Your task to perform on an android device: turn off airplane mode Image 0: 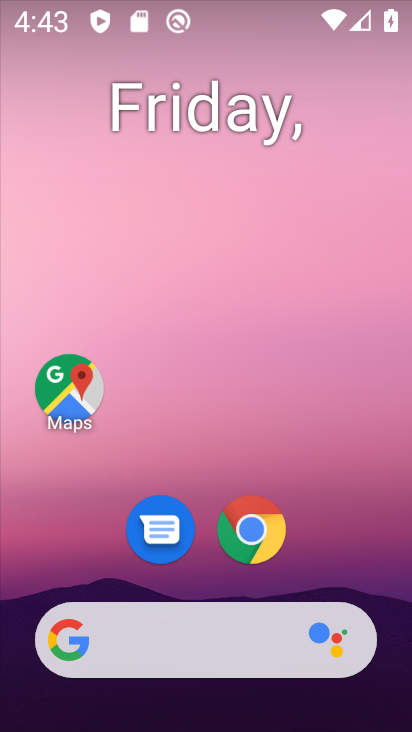
Step 0: press home button
Your task to perform on an android device: turn off airplane mode Image 1: 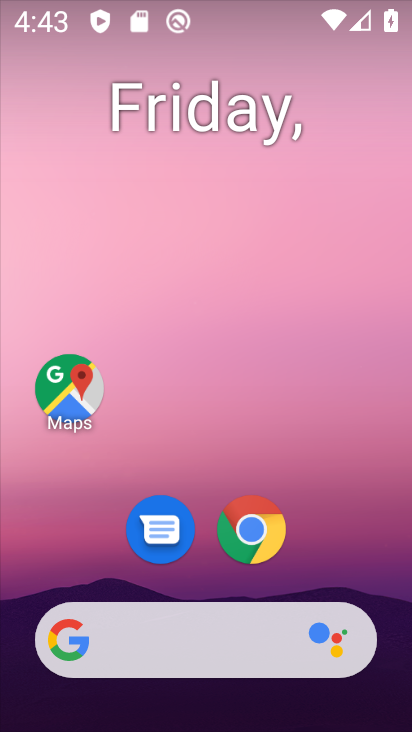
Step 1: drag from (328, 535) to (231, 32)
Your task to perform on an android device: turn off airplane mode Image 2: 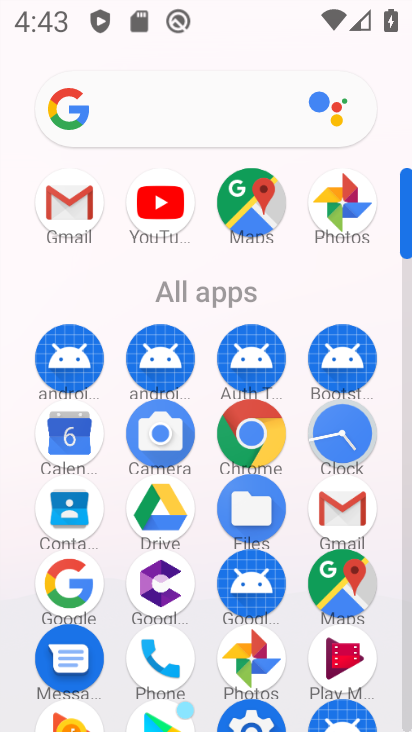
Step 2: click (254, 720)
Your task to perform on an android device: turn off airplane mode Image 3: 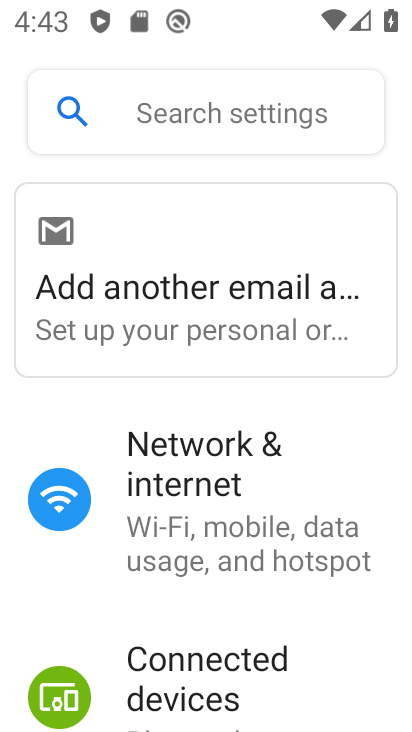
Step 3: click (257, 487)
Your task to perform on an android device: turn off airplane mode Image 4: 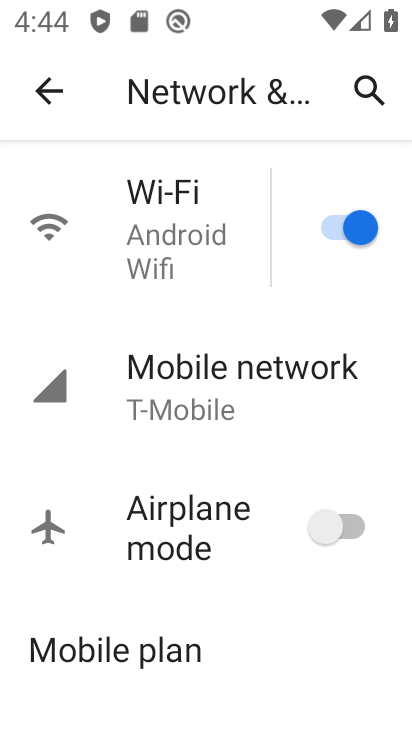
Step 4: task complete